Your task to perform on an android device: Is it going to rain today? Image 0: 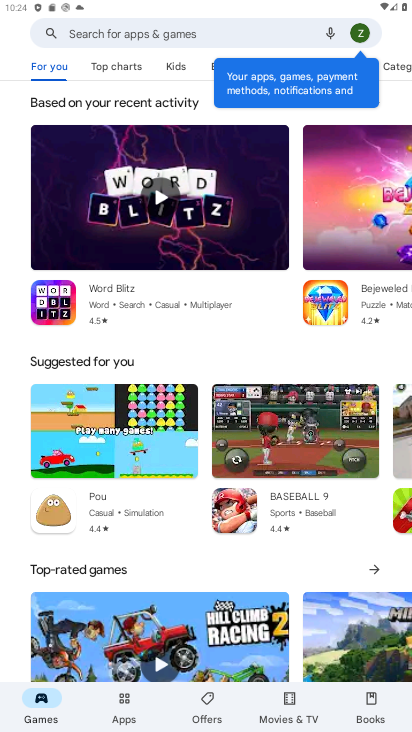
Step 0: press home button
Your task to perform on an android device: Is it going to rain today? Image 1: 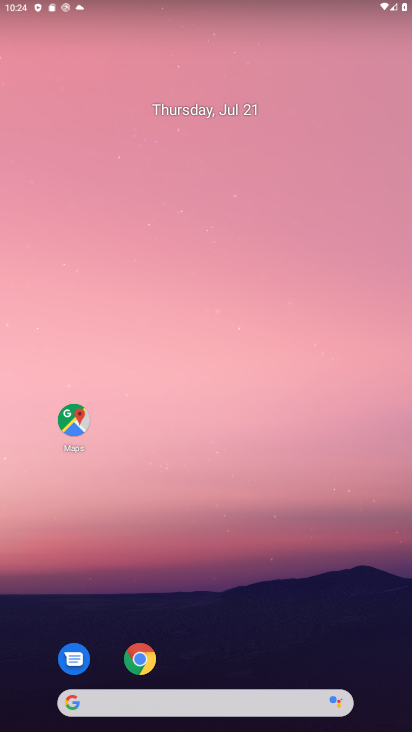
Step 1: click (238, 697)
Your task to perform on an android device: Is it going to rain today? Image 2: 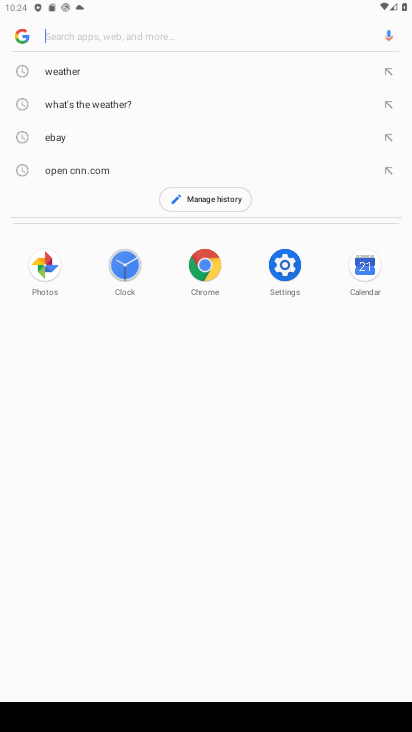
Step 2: click (88, 72)
Your task to perform on an android device: Is it going to rain today? Image 3: 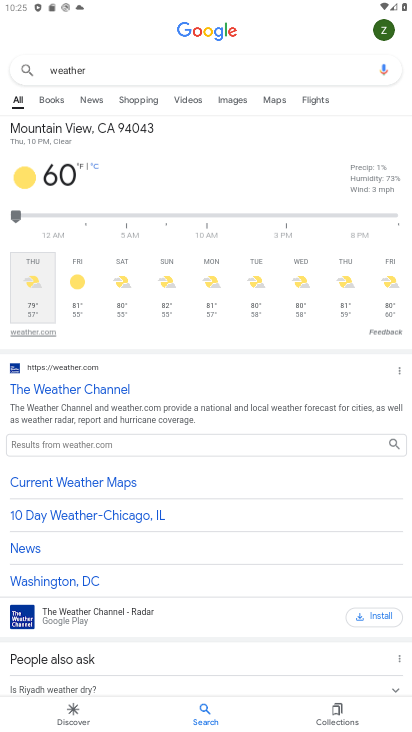
Step 3: task complete